Your task to perform on an android device: Go to calendar. Show me events next week Image 0: 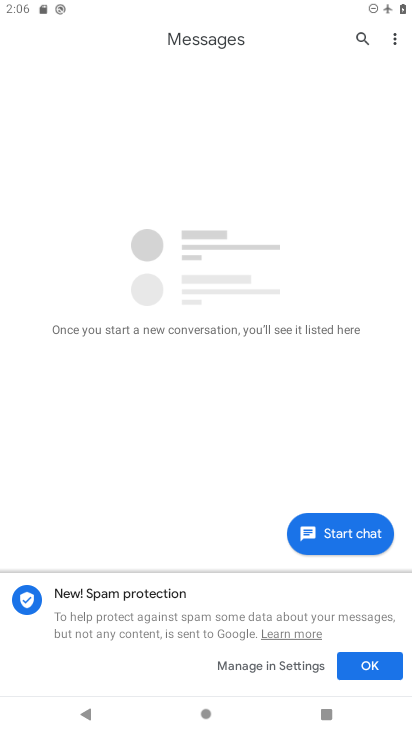
Step 0: press home button
Your task to perform on an android device: Go to calendar. Show me events next week Image 1: 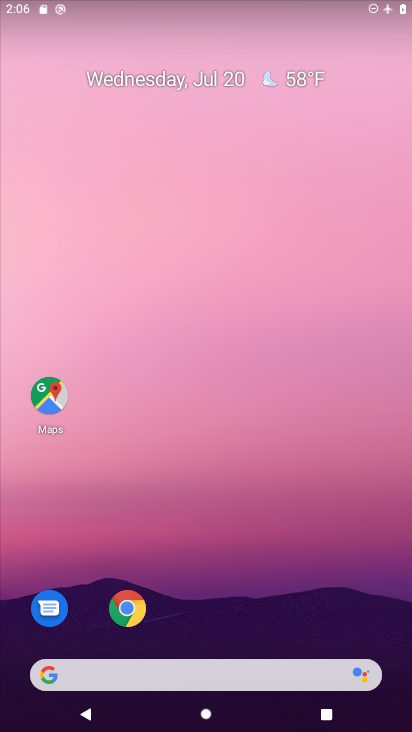
Step 1: drag from (223, 630) to (223, 124)
Your task to perform on an android device: Go to calendar. Show me events next week Image 2: 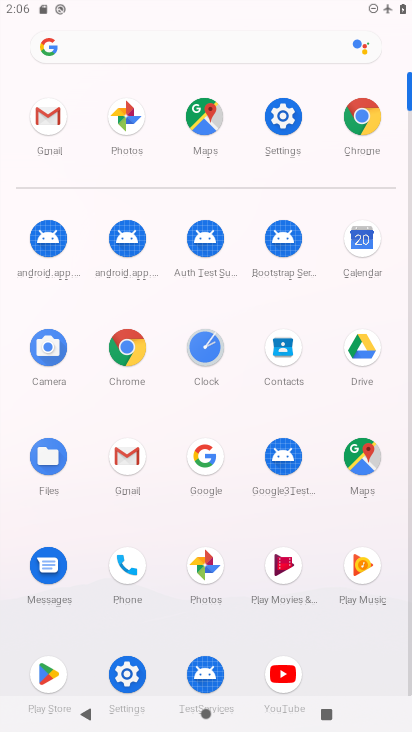
Step 2: click (356, 250)
Your task to perform on an android device: Go to calendar. Show me events next week Image 3: 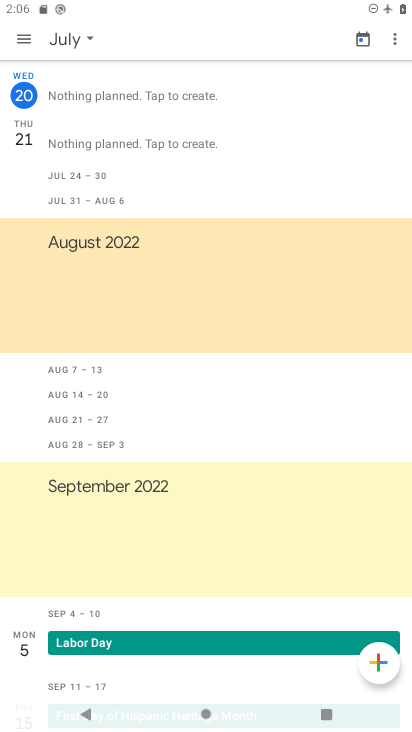
Step 3: click (91, 40)
Your task to perform on an android device: Go to calendar. Show me events next week Image 4: 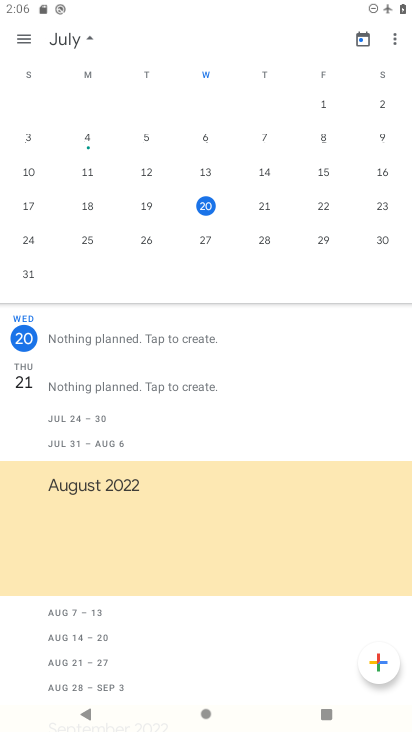
Step 4: click (84, 235)
Your task to perform on an android device: Go to calendar. Show me events next week Image 5: 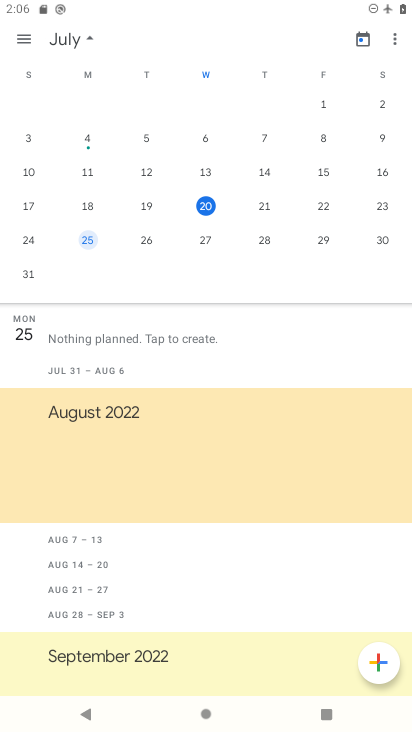
Step 5: click (89, 235)
Your task to perform on an android device: Go to calendar. Show me events next week Image 6: 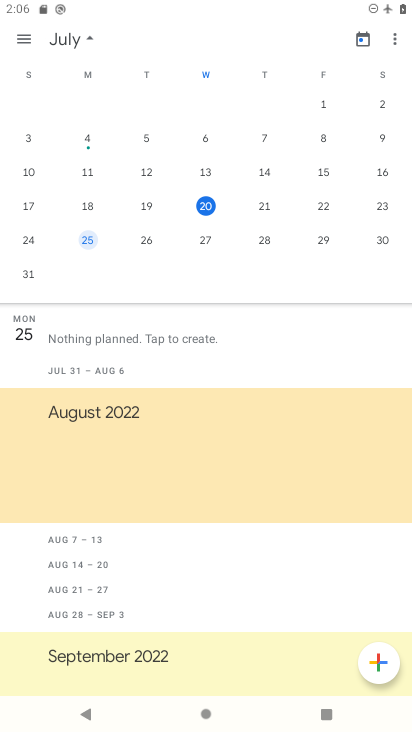
Step 6: click (25, 34)
Your task to perform on an android device: Go to calendar. Show me events next week Image 7: 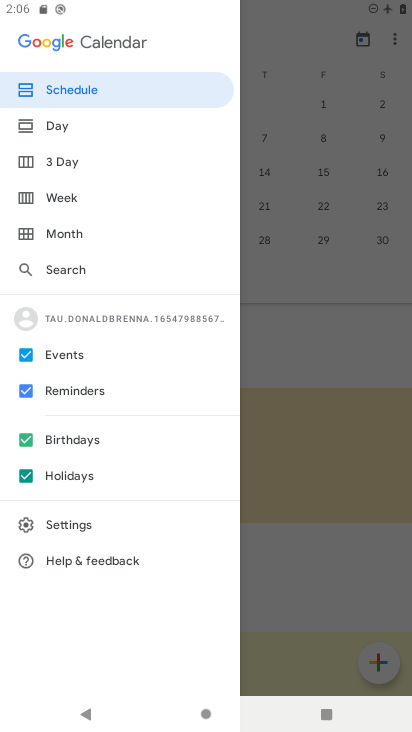
Step 7: click (61, 196)
Your task to perform on an android device: Go to calendar. Show me events next week Image 8: 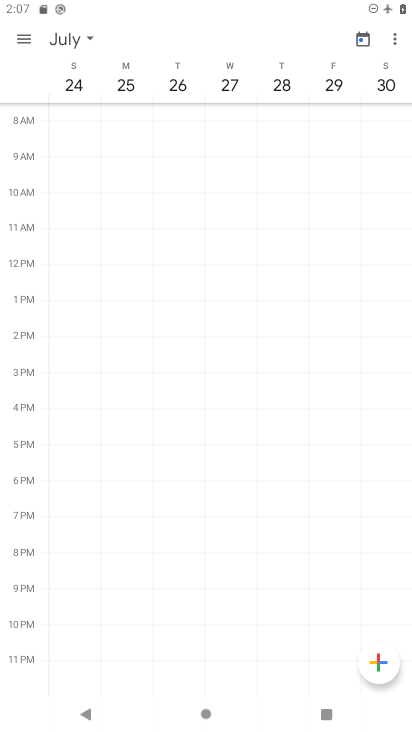
Step 8: task complete